Your task to perform on an android device: Show me productivity apps on the Play Store Image 0: 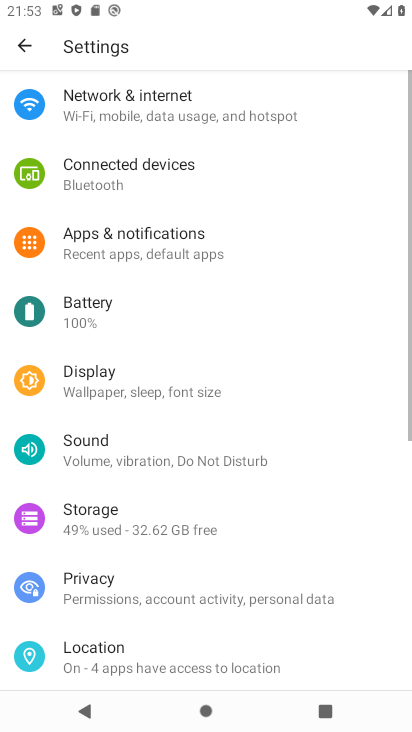
Step 0: press home button
Your task to perform on an android device: Show me productivity apps on the Play Store Image 1: 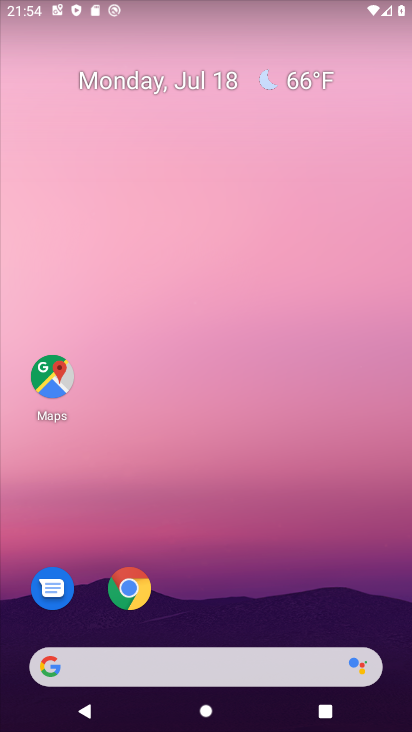
Step 1: drag from (167, 638) to (177, 44)
Your task to perform on an android device: Show me productivity apps on the Play Store Image 2: 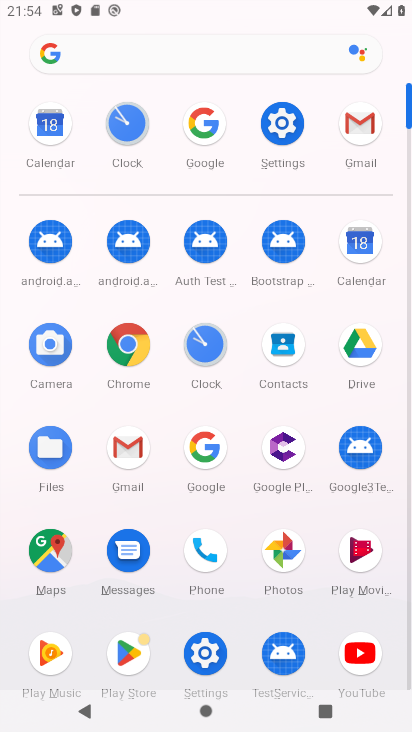
Step 2: click (131, 651)
Your task to perform on an android device: Show me productivity apps on the Play Store Image 3: 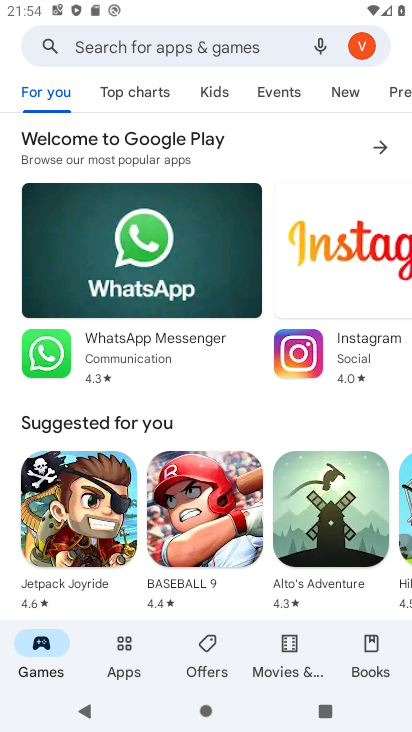
Step 3: click (123, 654)
Your task to perform on an android device: Show me productivity apps on the Play Store Image 4: 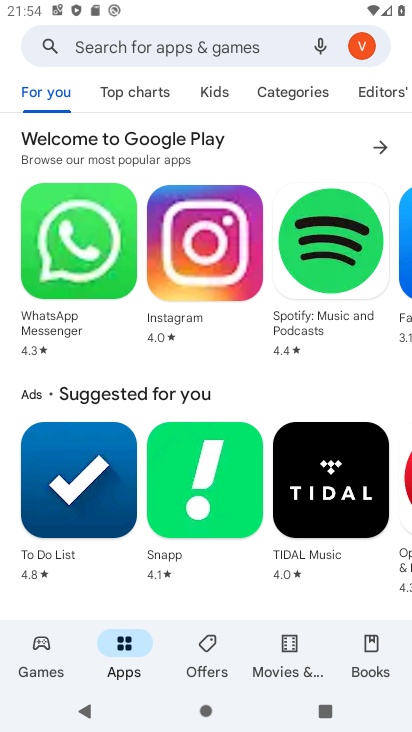
Step 4: click (305, 91)
Your task to perform on an android device: Show me productivity apps on the Play Store Image 5: 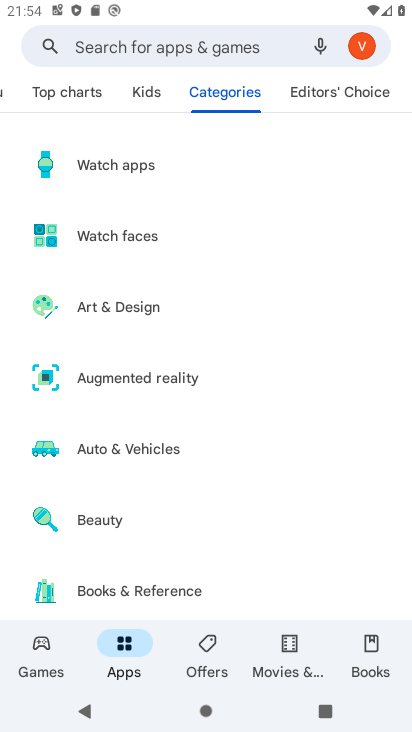
Step 5: drag from (213, 566) to (353, 62)
Your task to perform on an android device: Show me productivity apps on the Play Store Image 6: 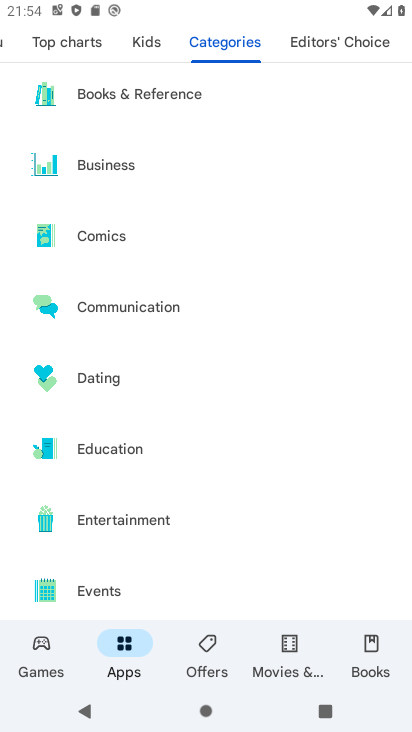
Step 6: drag from (230, 553) to (353, 9)
Your task to perform on an android device: Show me productivity apps on the Play Store Image 7: 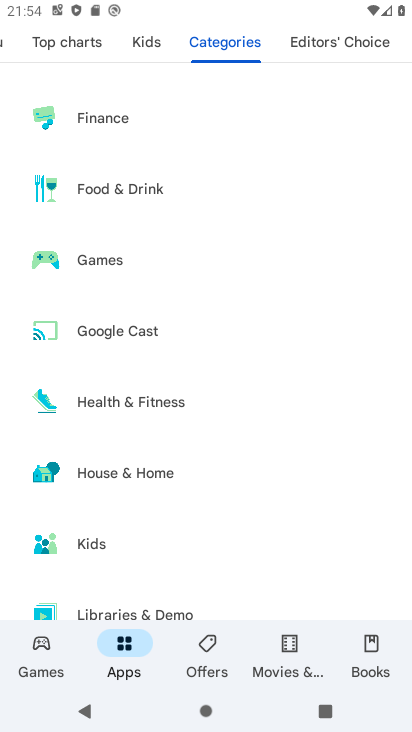
Step 7: drag from (212, 565) to (326, 100)
Your task to perform on an android device: Show me productivity apps on the Play Store Image 8: 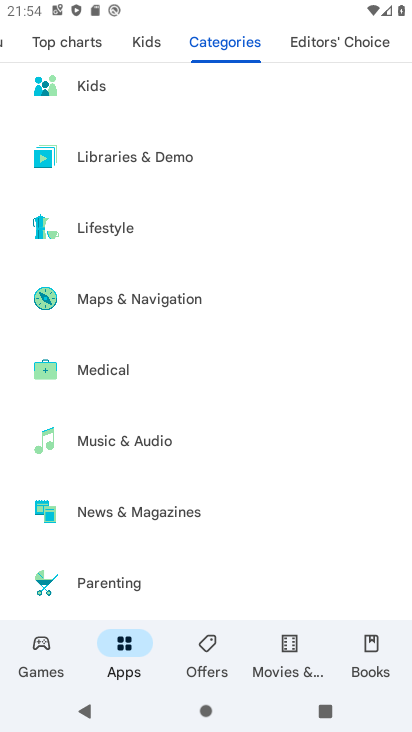
Step 8: drag from (263, 569) to (287, 128)
Your task to perform on an android device: Show me productivity apps on the Play Store Image 9: 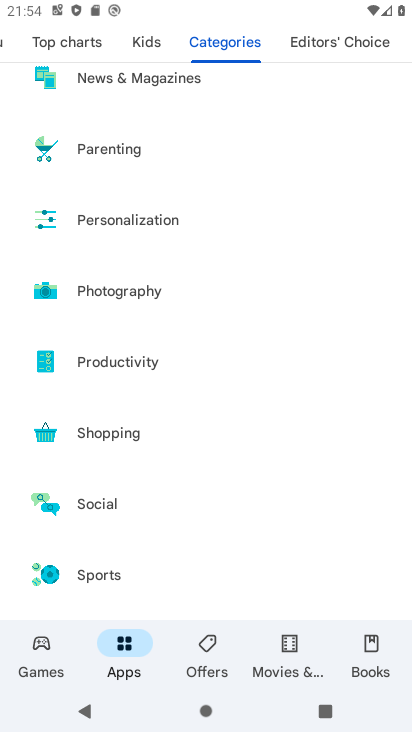
Step 9: click (133, 366)
Your task to perform on an android device: Show me productivity apps on the Play Store Image 10: 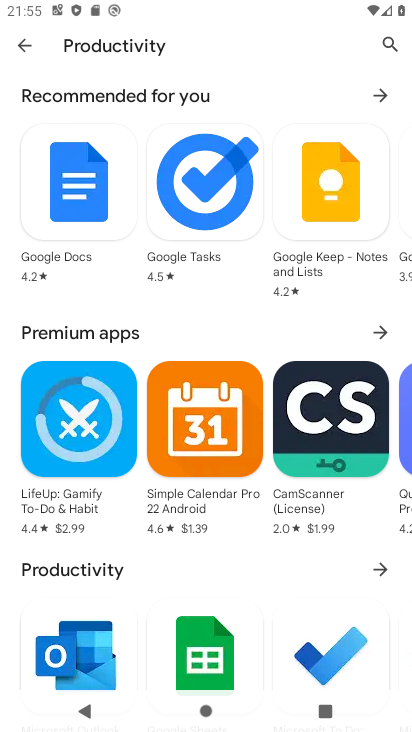
Step 10: task complete